Your task to perform on an android device: Set the phone to "Do not disturb". Image 0: 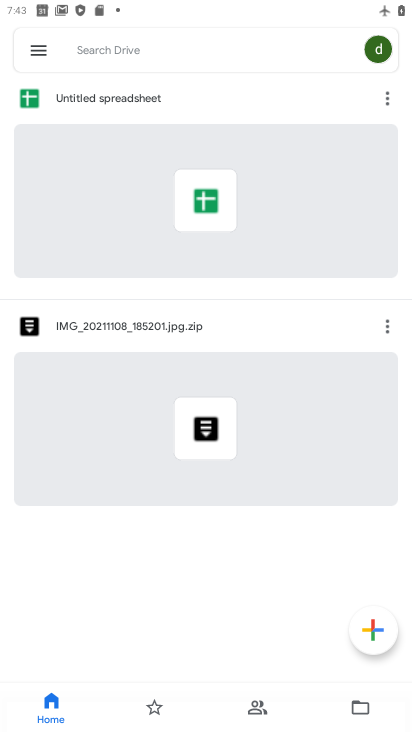
Step 0: press home button
Your task to perform on an android device: Set the phone to "Do not disturb". Image 1: 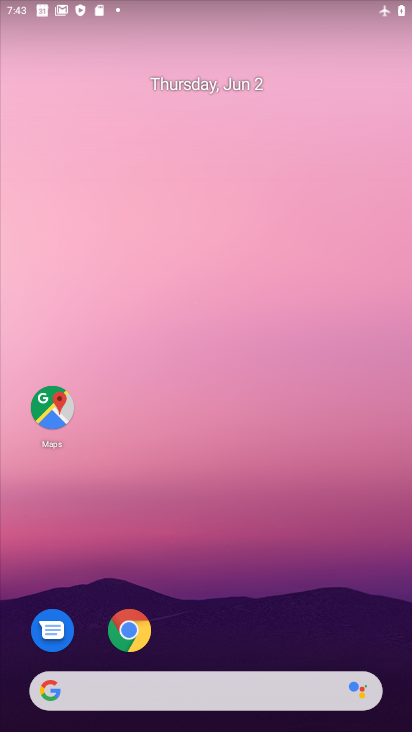
Step 1: drag from (128, 18) to (97, 628)
Your task to perform on an android device: Set the phone to "Do not disturb". Image 2: 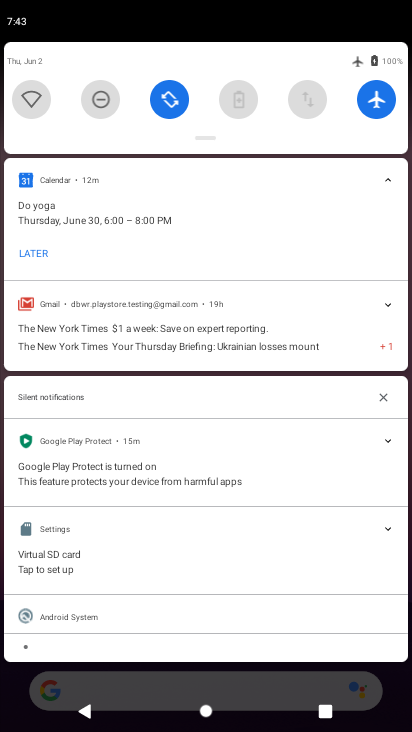
Step 2: click (104, 100)
Your task to perform on an android device: Set the phone to "Do not disturb". Image 3: 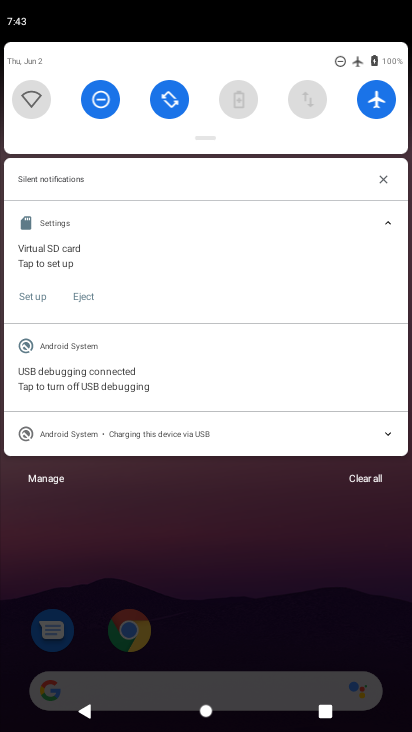
Step 3: task complete